Your task to perform on an android device: Open the Play Movies app and select the watchlist tab. Image 0: 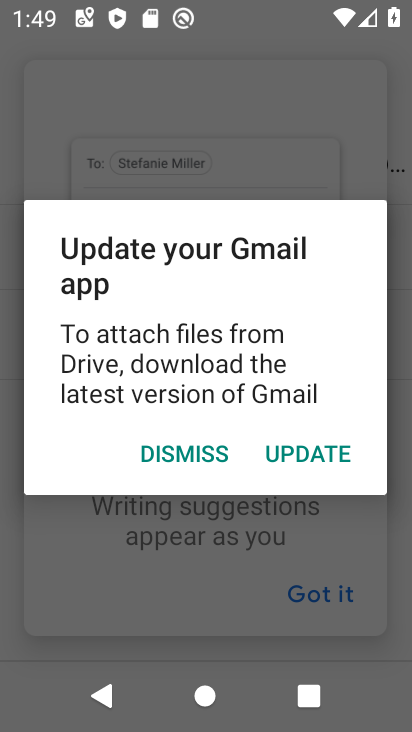
Step 0: press home button
Your task to perform on an android device: Open the Play Movies app and select the watchlist tab. Image 1: 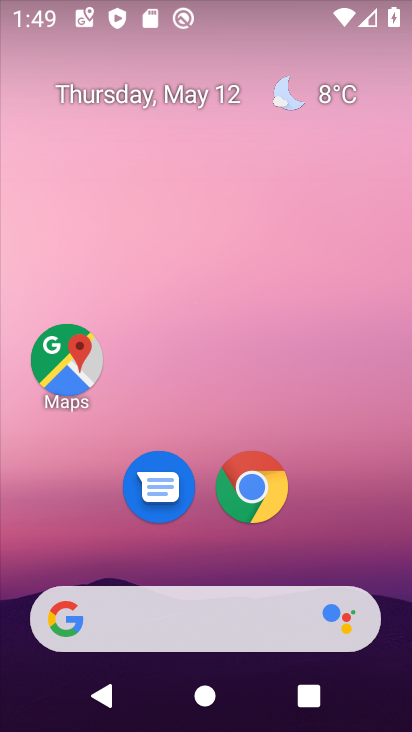
Step 1: drag from (211, 564) to (225, 52)
Your task to perform on an android device: Open the Play Movies app and select the watchlist tab. Image 2: 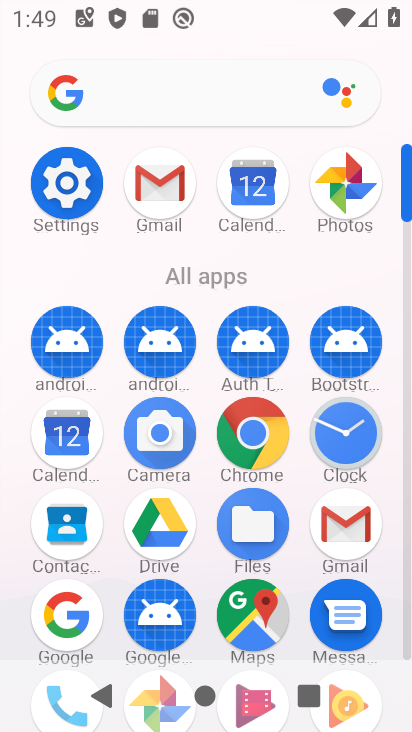
Step 2: drag from (301, 574) to (300, 313)
Your task to perform on an android device: Open the Play Movies app and select the watchlist tab. Image 3: 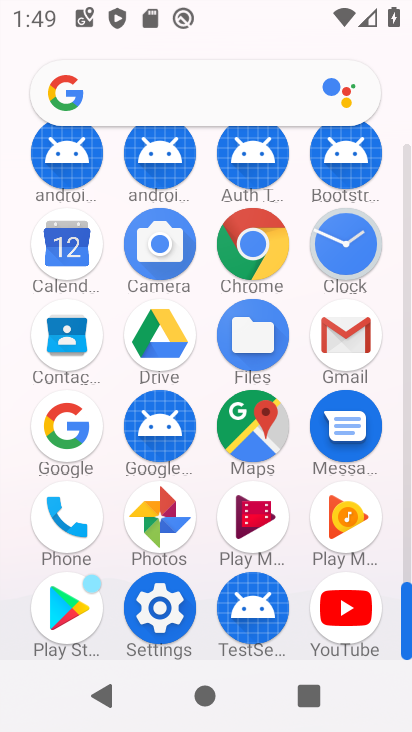
Step 3: click (255, 534)
Your task to perform on an android device: Open the Play Movies app and select the watchlist tab. Image 4: 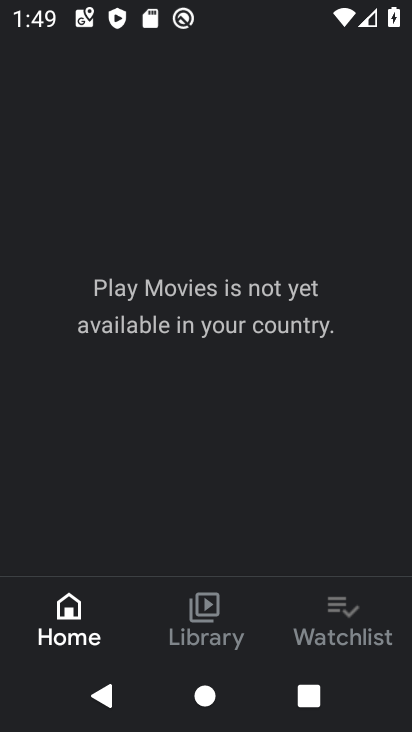
Step 4: click (363, 626)
Your task to perform on an android device: Open the Play Movies app and select the watchlist tab. Image 5: 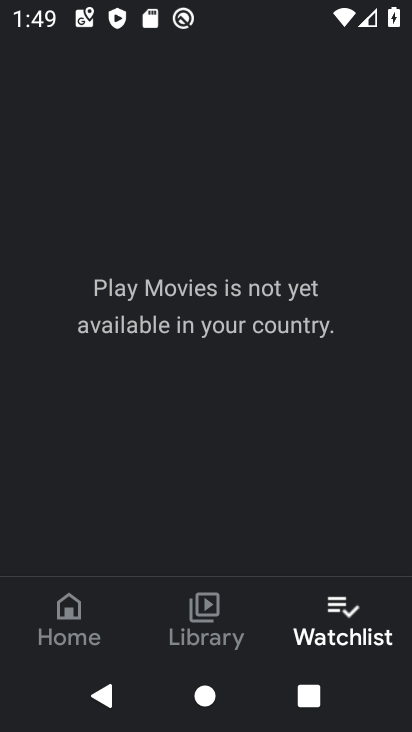
Step 5: task complete